Your task to perform on an android device: turn off smart reply in the gmail app Image 0: 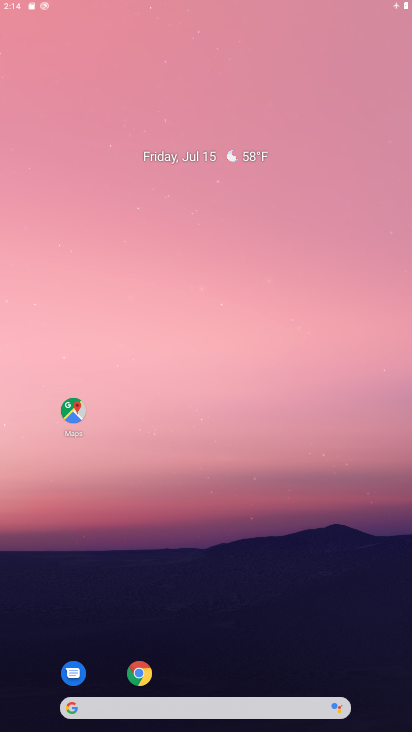
Step 0: drag from (324, 267) to (316, 153)
Your task to perform on an android device: turn off smart reply in the gmail app Image 1: 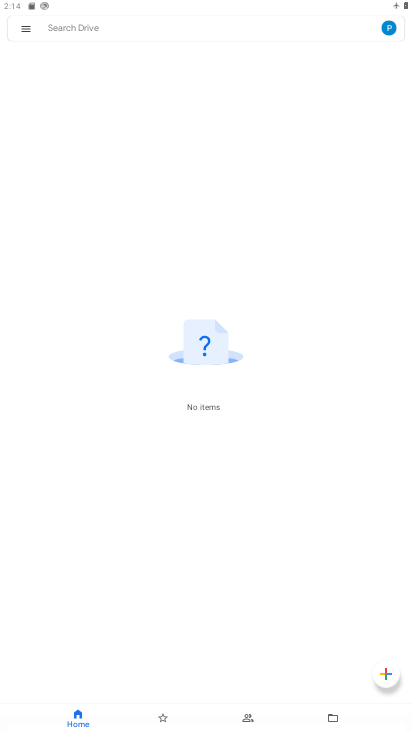
Step 1: press home button
Your task to perform on an android device: turn off smart reply in the gmail app Image 2: 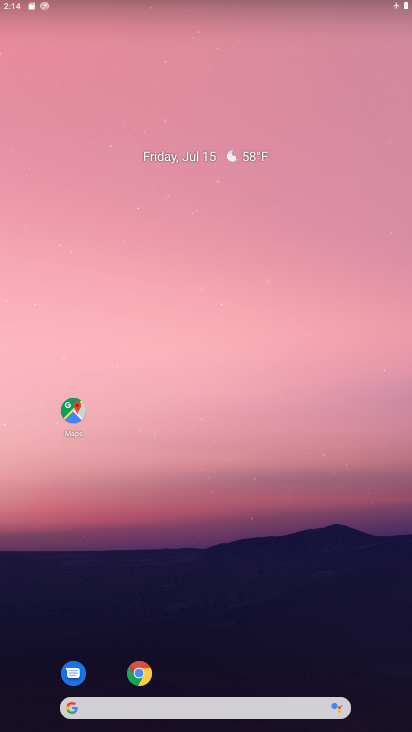
Step 2: drag from (367, 500) to (349, 151)
Your task to perform on an android device: turn off smart reply in the gmail app Image 3: 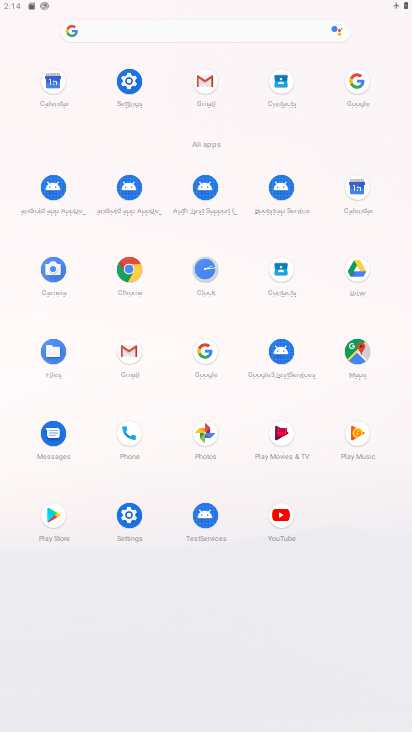
Step 3: click (130, 356)
Your task to perform on an android device: turn off smart reply in the gmail app Image 4: 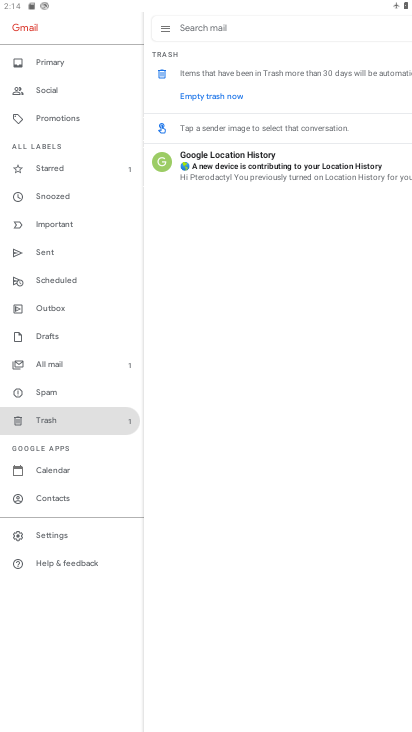
Step 4: click (164, 33)
Your task to perform on an android device: turn off smart reply in the gmail app Image 5: 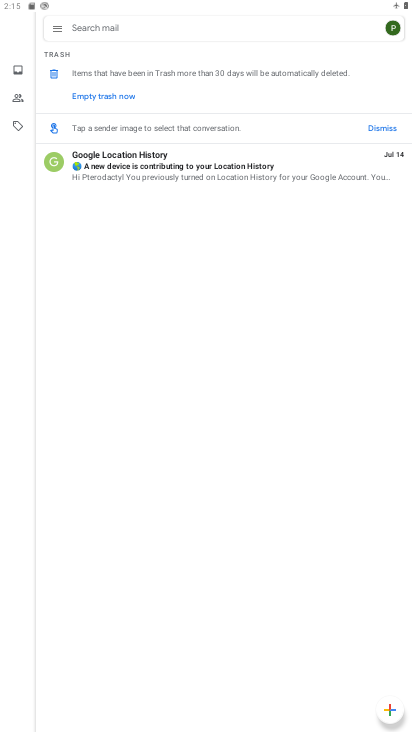
Step 5: click (59, 29)
Your task to perform on an android device: turn off smart reply in the gmail app Image 6: 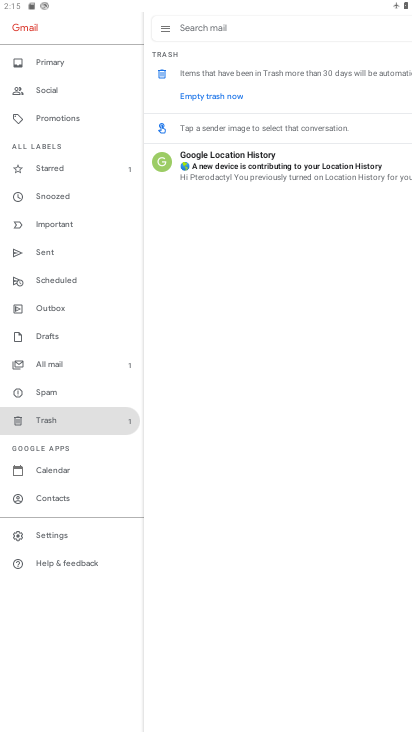
Step 6: click (55, 531)
Your task to perform on an android device: turn off smart reply in the gmail app Image 7: 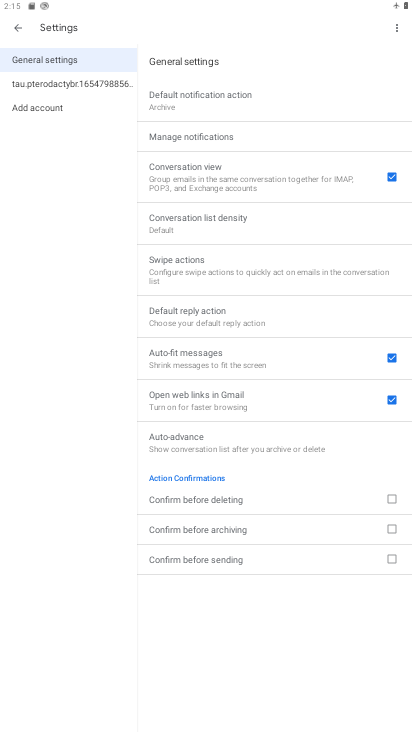
Step 7: click (77, 89)
Your task to perform on an android device: turn off smart reply in the gmail app Image 8: 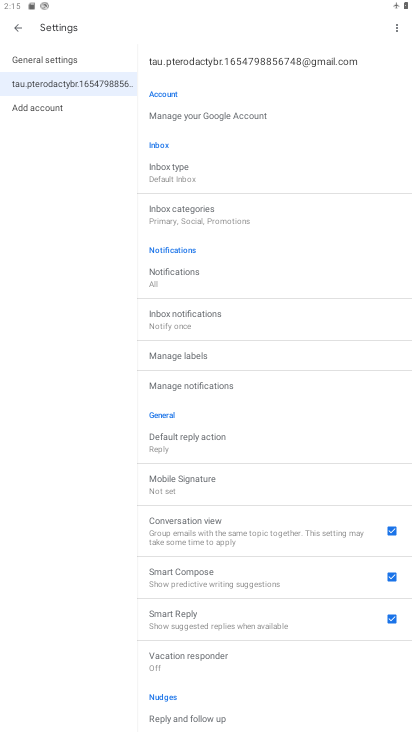
Step 8: click (205, 623)
Your task to perform on an android device: turn off smart reply in the gmail app Image 9: 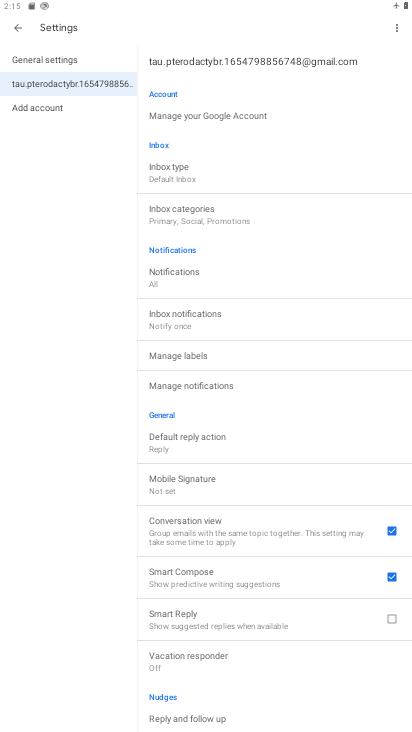
Step 9: task complete